Your task to perform on an android device: Open maps Image 0: 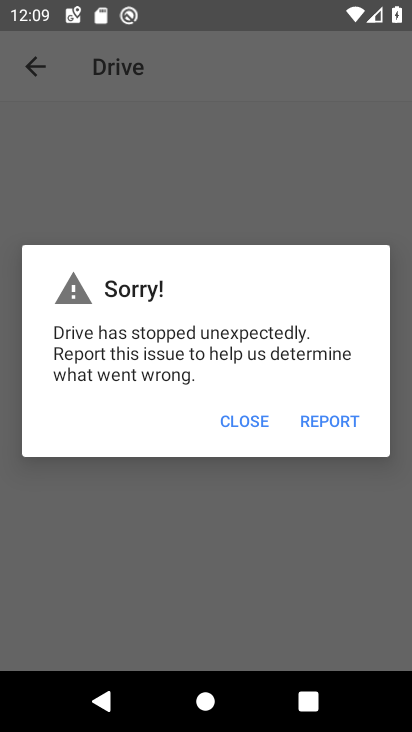
Step 0: press home button
Your task to perform on an android device: Open maps Image 1: 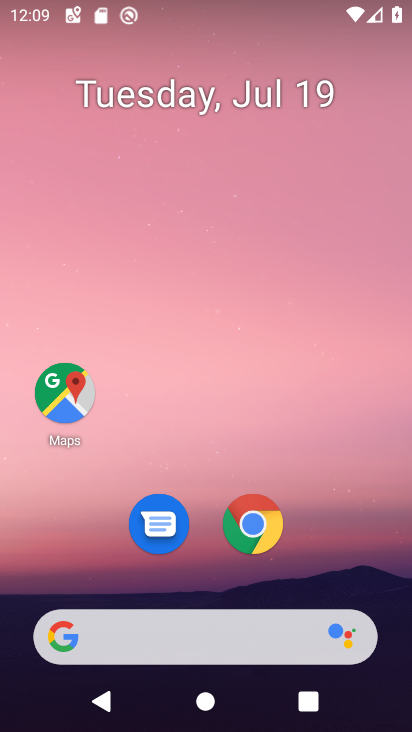
Step 1: click (67, 396)
Your task to perform on an android device: Open maps Image 2: 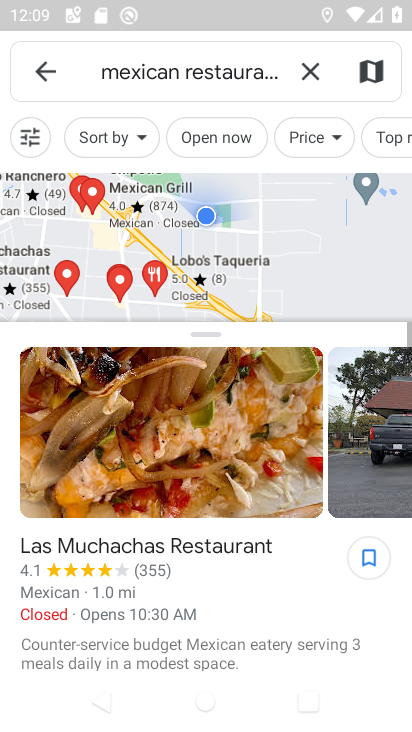
Step 2: click (311, 68)
Your task to perform on an android device: Open maps Image 3: 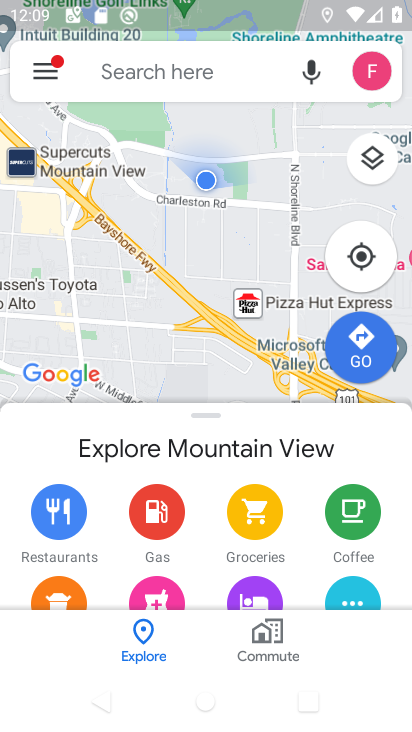
Step 3: task complete